Your task to perform on an android device: turn on notifications settings in the gmail app Image 0: 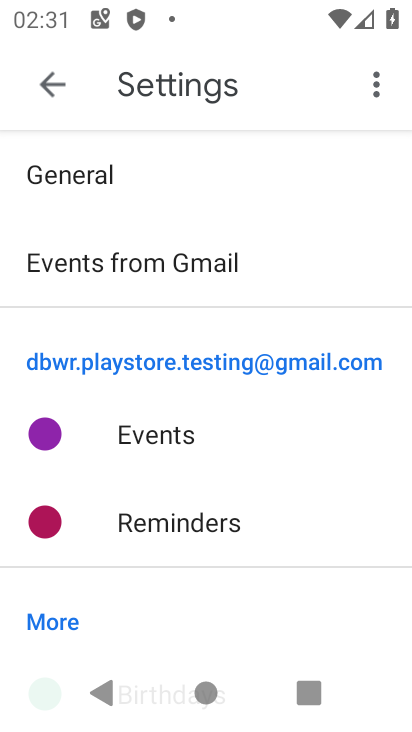
Step 0: press home button
Your task to perform on an android device: turn on notifications settings in the gmail app Image 1: 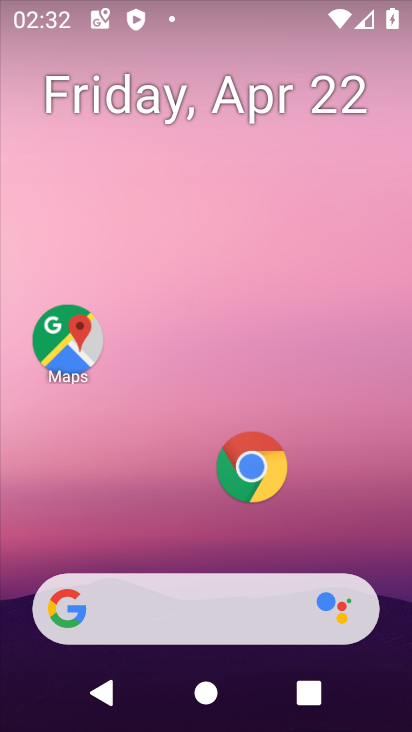
Step 1: drag from (46, 494) to (109, 150)
Your task to perform on an android device: turn on notifications settings in the gmail app Image 2: 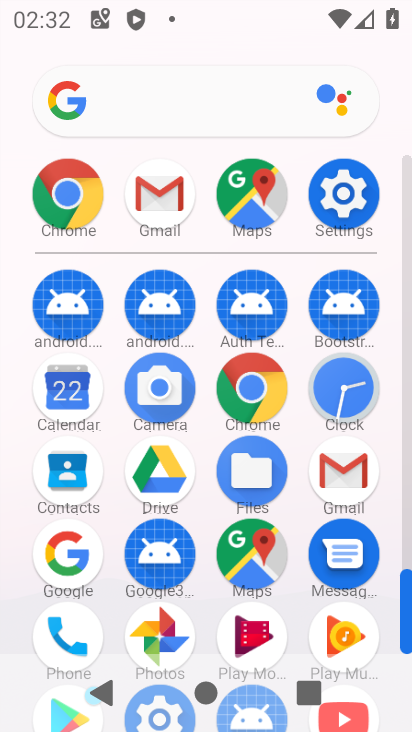
Step 2: click (168, 183)
Your task to perform on an android device: turn on notifications settings in the gmail app Image 3: 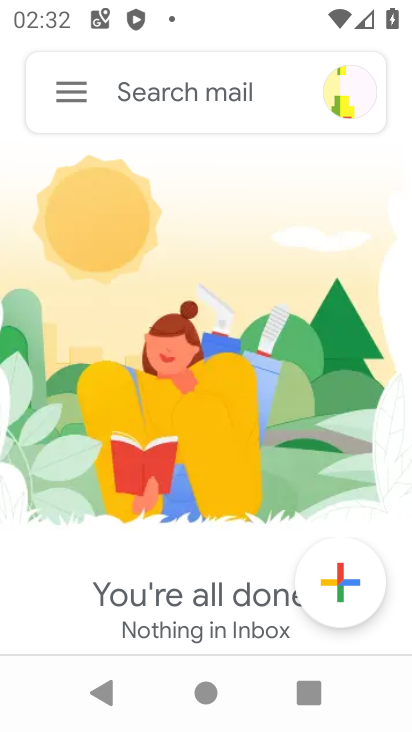
Step 3: click (74, 91)
Your task to perform on an android device: turn on notifications settings in the gmail app Image 4: 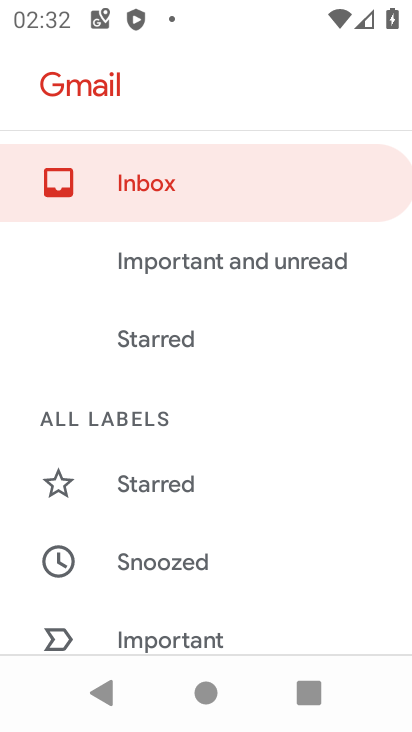
Step 4: drag from (216, 595) to (212, 156)
Your task to perform on an android device: turn on notifications settings in the gmail app Image 5: 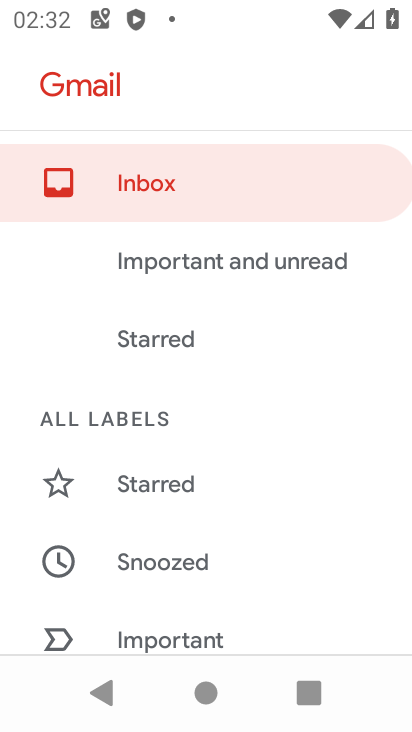
Step 5: drag from (162, 601) to (194, 202)
Your task to perform on an android device: turn on notifications settings in the gmail app Image 6: 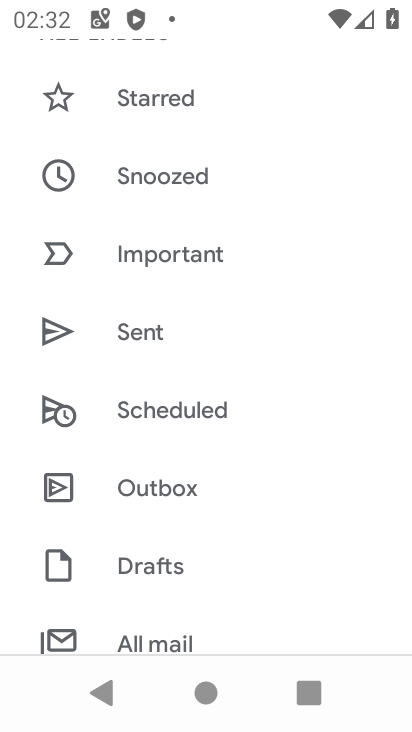
Step 6: drag from (174, 569) to (221, 288)
Your task to perform on an android device: turn on notifications settings in the gmail app Image 7: 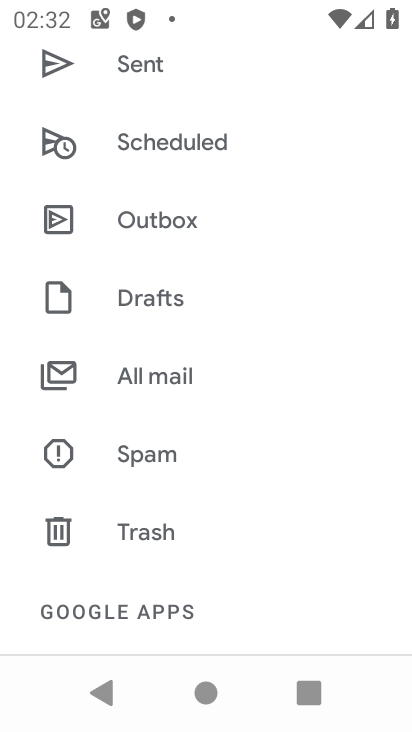
Step 7: drag from (184, 306) to (196, 170)
Your task to perform on an android device: turn on notifications settings in the gmail app Image 8: 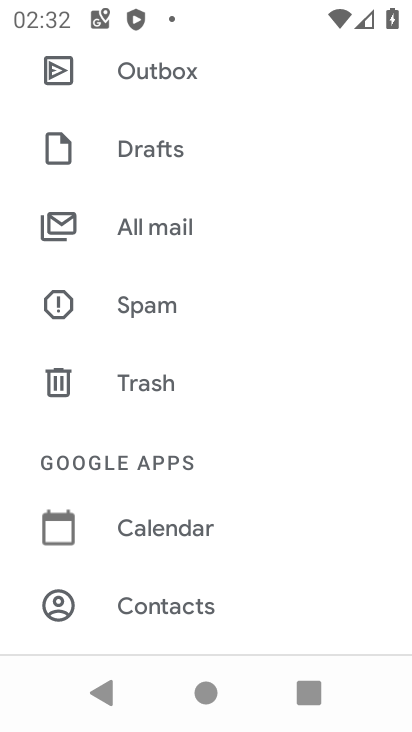
Step 8: drag from (164, 523) to (211, 185)
Your task to perform on an android device: turn on notifications settings in the gmail app Image 9: 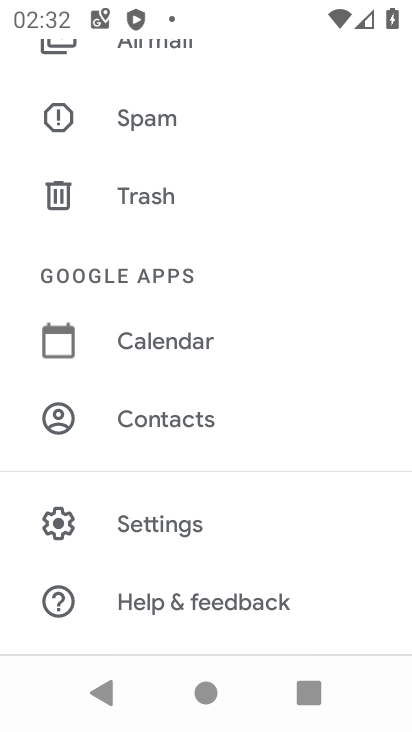
Step 9: click (172, 524)
Your task to perform on an android device: turn on notifications settings in the gmail app Image 10: 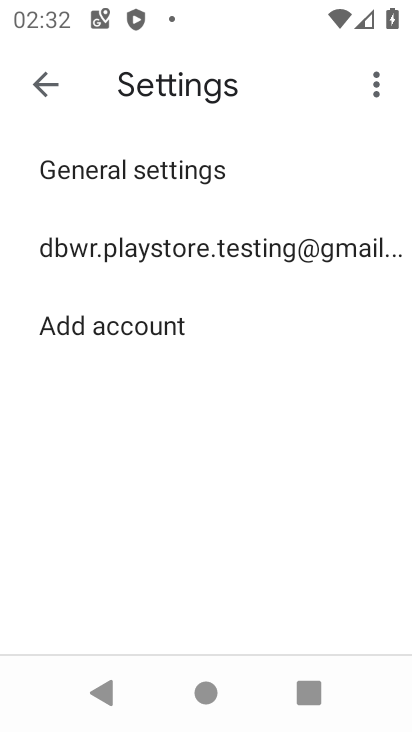
Step 10: click (185, 243)
Your task to perform on an android device: turn on notifications settings in the gmail app Image 11: 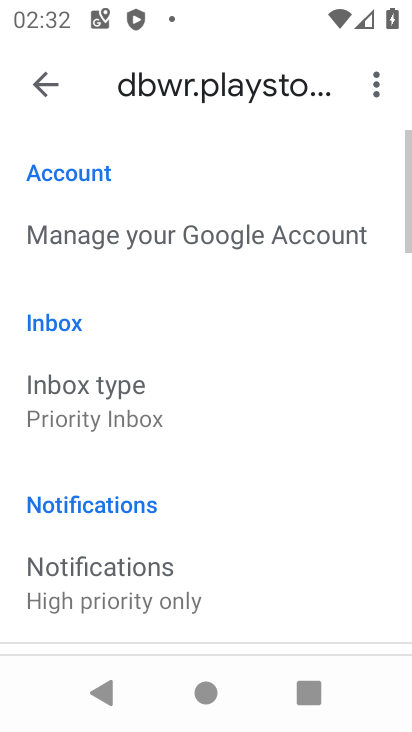
Step 11: drag from (162, 455) to (186, 203)
Your task to perform on an android device: turn on notifications settings in the gmail app Image 12: 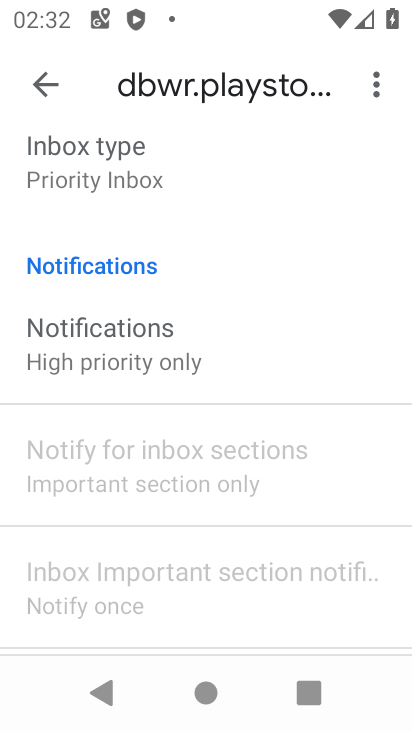
Step 12: drag from (161, 430) to (202, 202)
Your task to perform on an android device: turn on notifications settings in the gmail app Image 13: 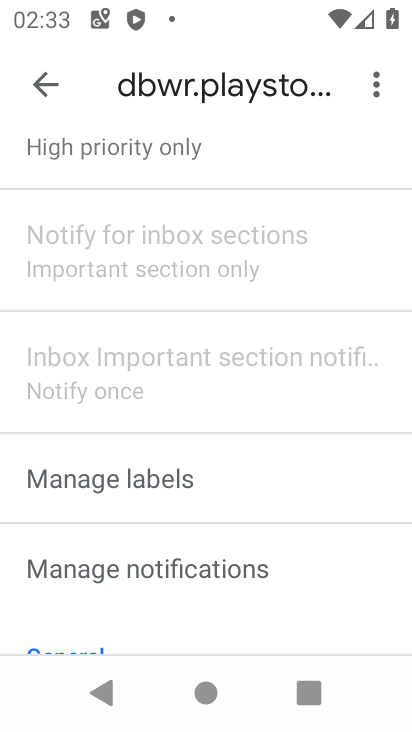
Step 13: drag from (165, 551) to (201, 337)
Your task to perform on an android device: turn on notifications settings in the gmail app Image 14: 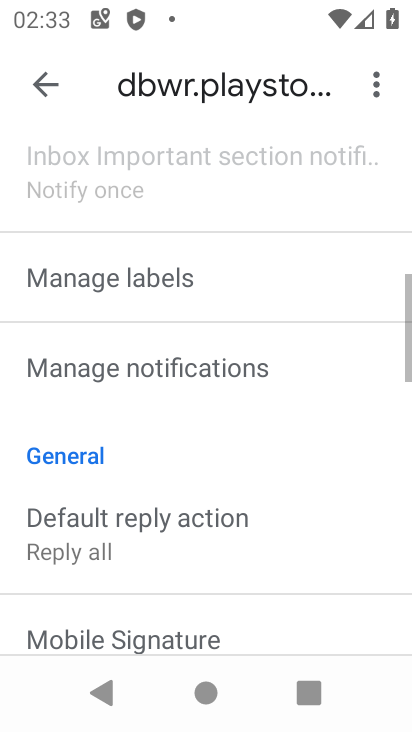
Step 14: click (145, 374)
Your task to perform on an android device: turn on notifications settings in the gmail app Image 15: 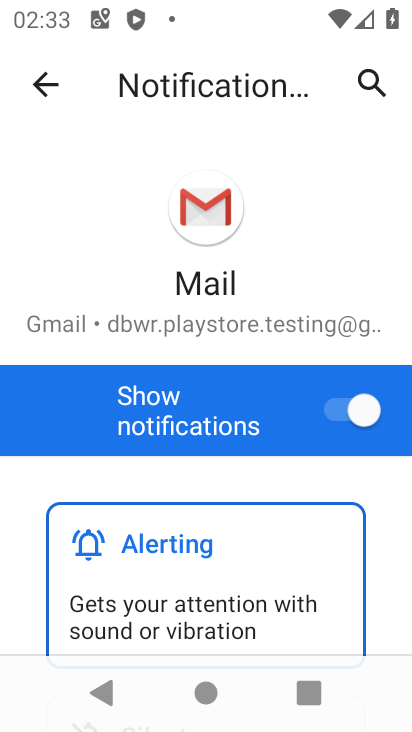
Step 15: task complete